Your task to perform on an android device: refresh tabs in the chrome app Image 0: 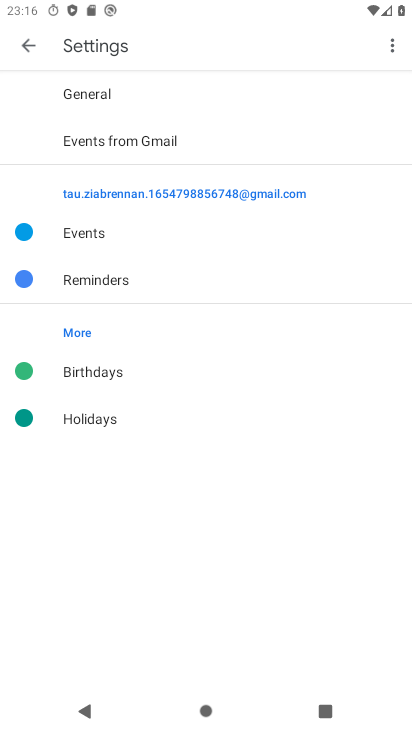
Step 0: press home button
Your task to perform on an android device: refresh tabs in the chrome app Image 1: 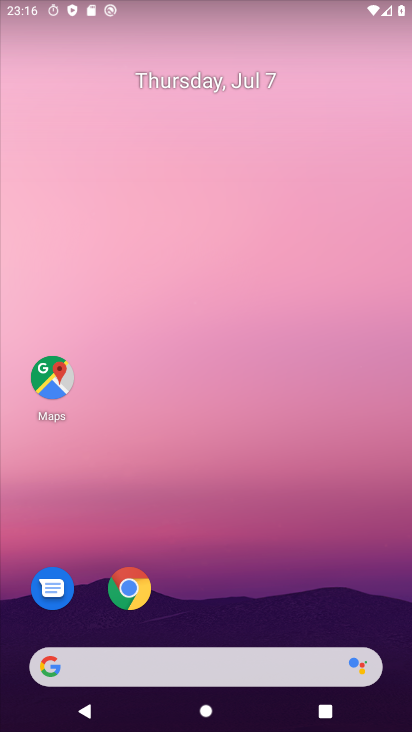
Step 1: drag from (243, 550) to (313, 59)
Your task to perform on an android device: refresh tabs in the chrome app Image 2: 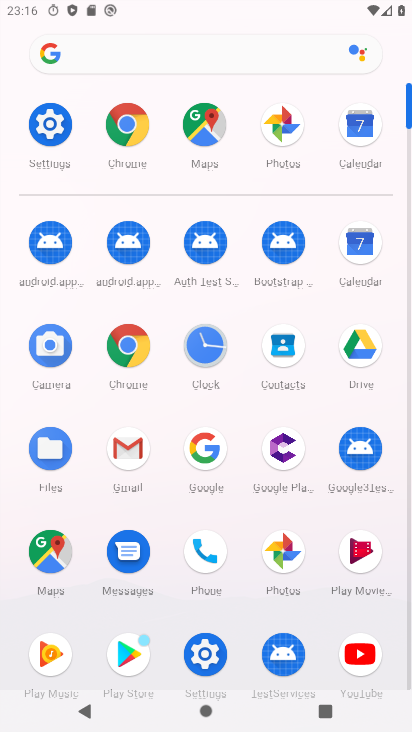
Step 2: click (125, 341)
Your task to perform on an android device: refresh tabs in the chrome app Image 3: 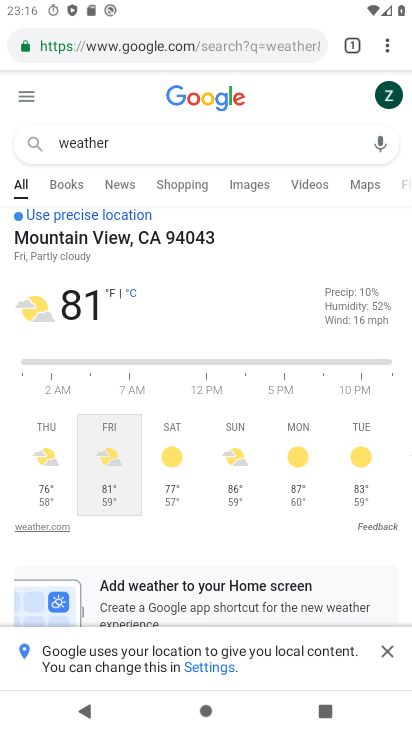
Step 3: click (386, 40)
Your task to perform on an android device: refresh tabs in the chrome app Image 4: 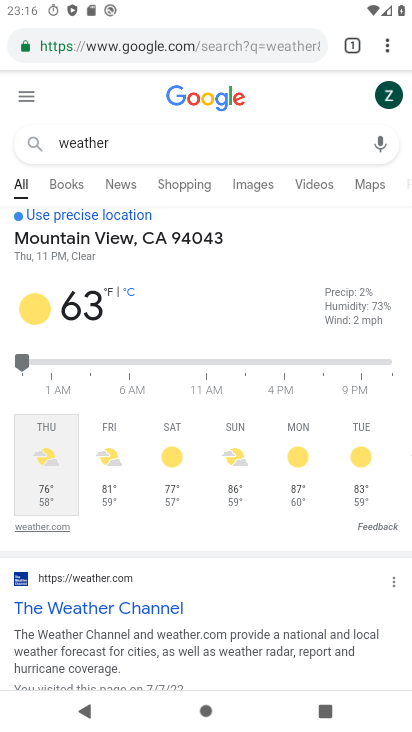
Step 4: task complete